Your task to perform on an android device: When is my next appointment? Image 0: 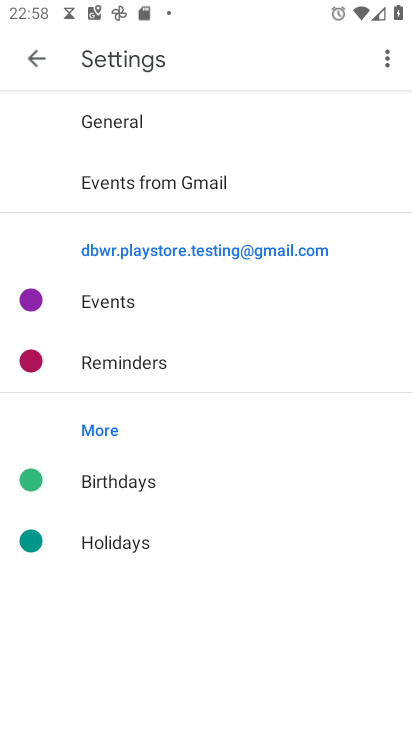
Step 0: press home button
Your task to perform on an android device: When is my next appointment? Image 1: 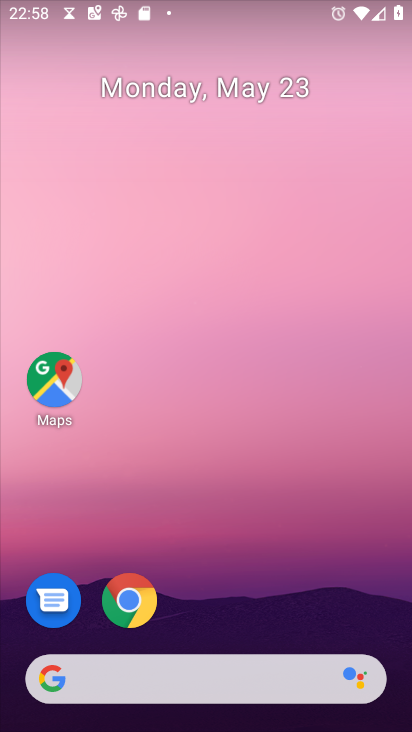
Step 1: drag from (205, 725) to (218, 48)
Your task to perform on an android device: When is my next appointment? Image 2: 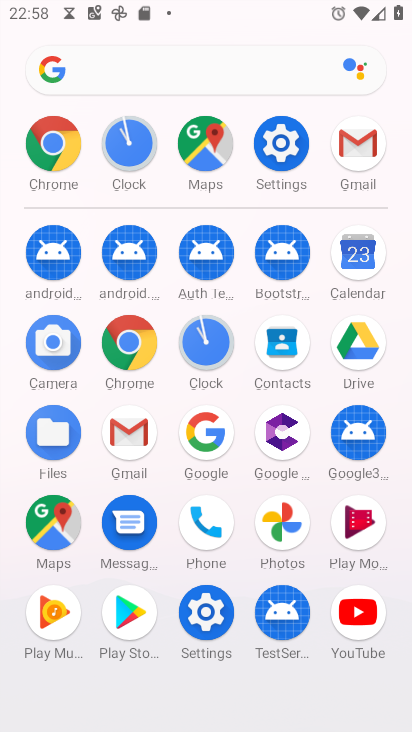
Step 2: click (365, 255)
Your task to perform on an android device: When is my next appointment? Image 3: 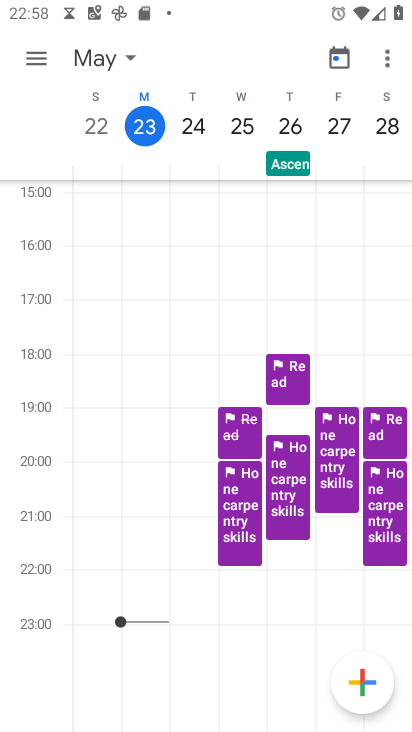
Step 3: click (202, 127)
Your task to perform on an android device: When is my next appointment? Image 4: 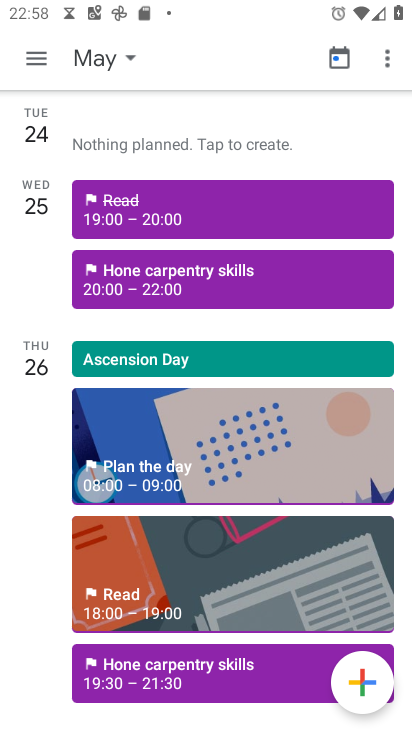
Step 4: task complete